Your task to perform on an android device: What's the weather? Image 0: 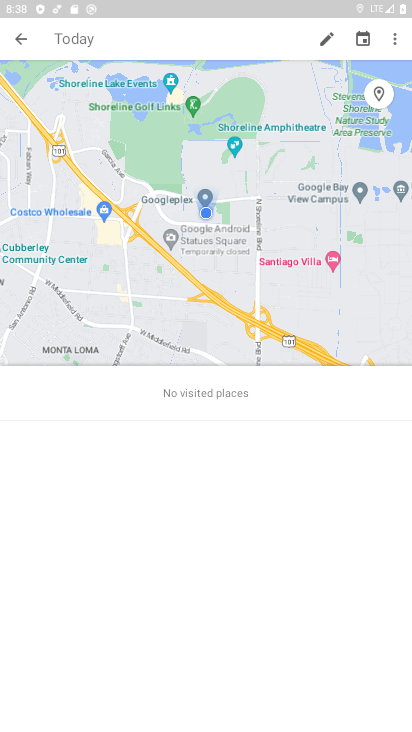
Step 0: press home button
Your task to perform on an android device: What's the weather? Image 1: 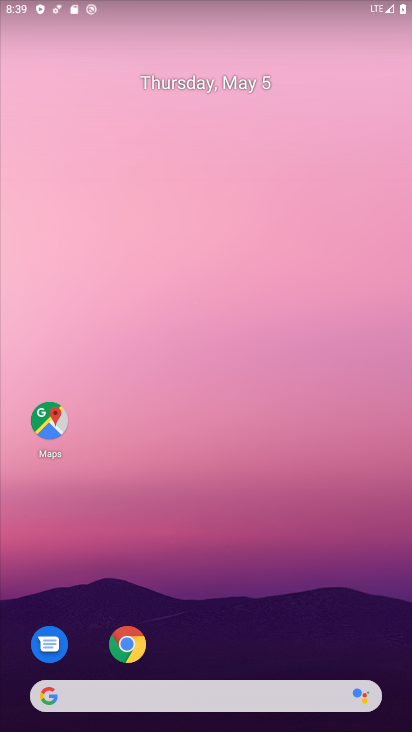
Step 1: drag from (51, 115) to (361, 209)
Your task to perform on an android device: What's the weather? Image 2: 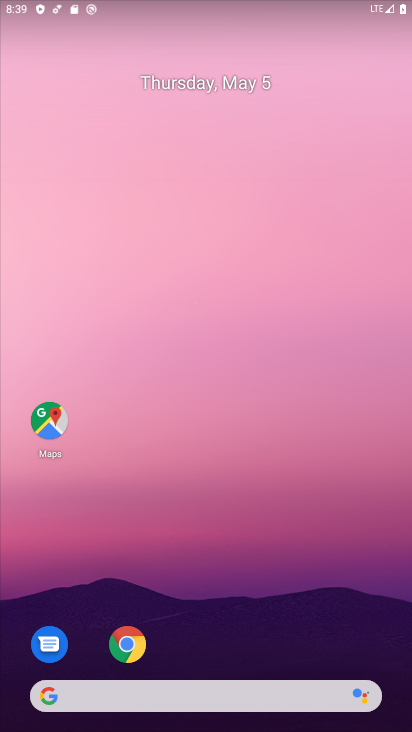
Step 2: drag from (249, 582) to (238, 9)
Your task to perform on an android device: What's the weather? Image 3: 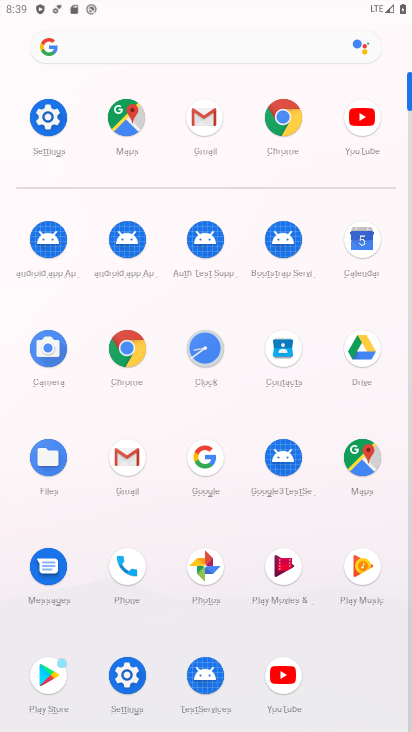
Step 3: click (209, 459)
Your task to perform on an android device: What's the weather? Image 4: 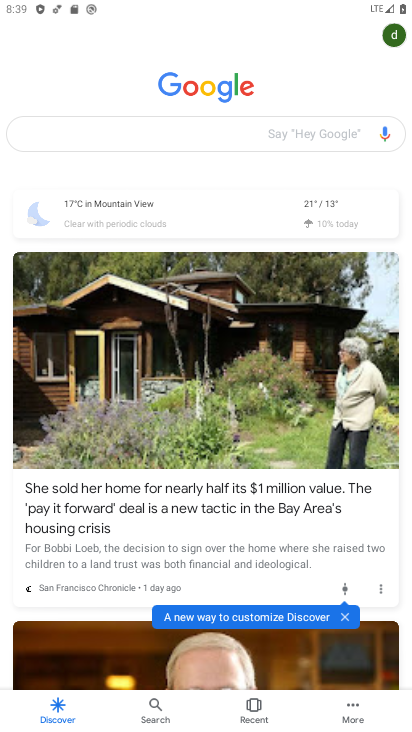
Step 4: click (95, 206)
Your task to perform on an android device: What's the weather? Image 5: 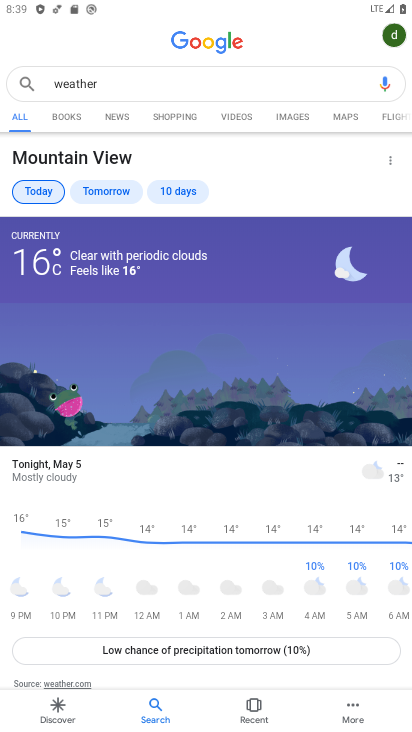
Step 5: task complete